Your task to perform on an android device: see tabs open on other devices in the chrome app Image 0: 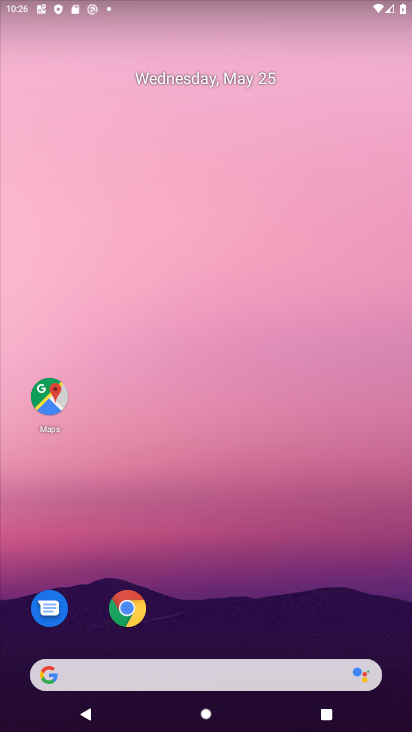
Step 0: click (124, 610)
Your task to perform on an android device: see tabs open on other devices in the chrome app Image 1: 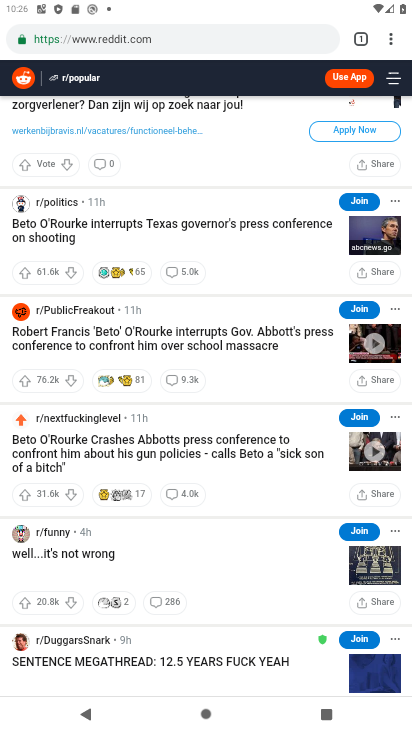
Step 1: click (391, 40)
Your task to perform on an android device: see tabs open on other devices in the chrome app Image 2: 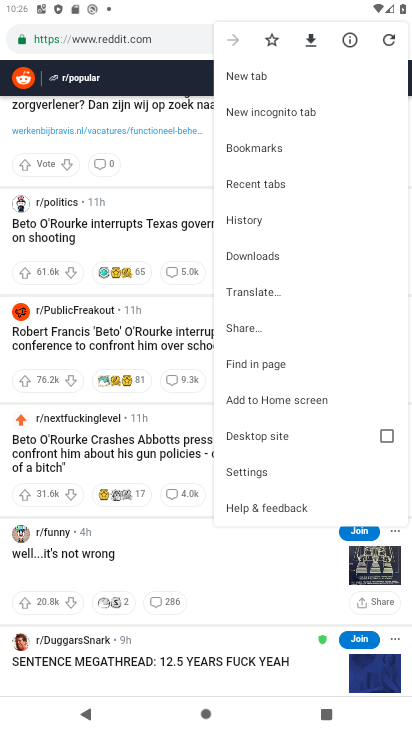
Step 2: click (267, 187)
Your task to perform on an android device: see tabs open on other devices in the chrome app Image 3: 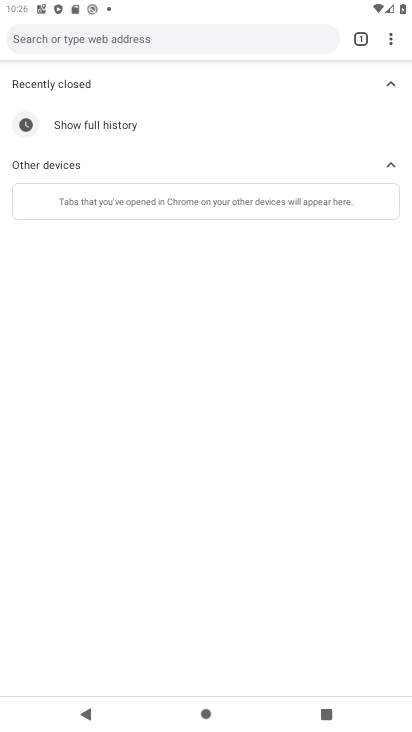
Step 3: task complete